Your task to perform on an android device: turn off picture-in-picture Image 0: 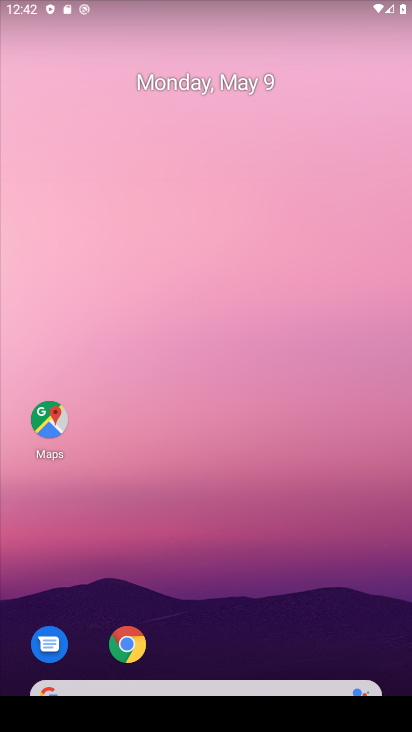
Step 0: drag from (216, 638) to (137, 156)
Your task to perform on an android device: turn off picture-in-picture Image 1: 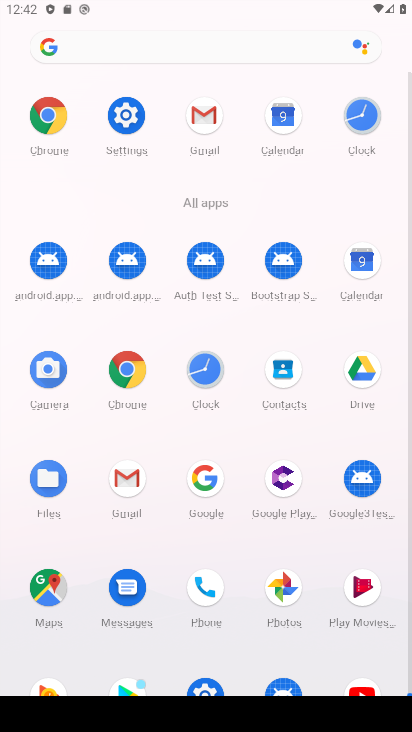
Step 1: click (131, 139)
Your task to perform on an android device: turn off picture-in-picture Image 2: 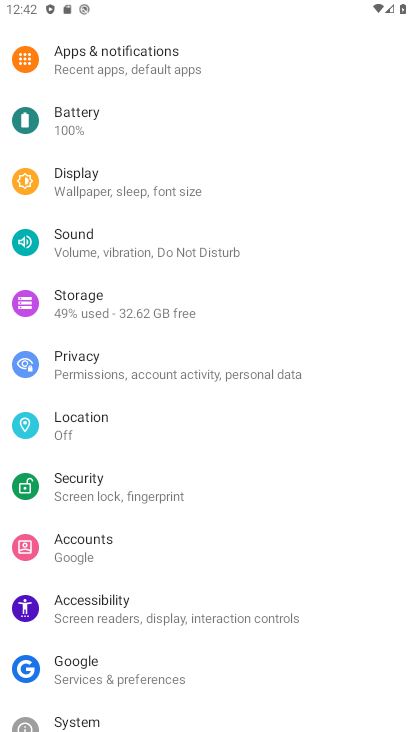
Step 2: drag from (131, 145) to (76, 725)
Your task to perform on an android device: turn off picture-in-picture Image 3: 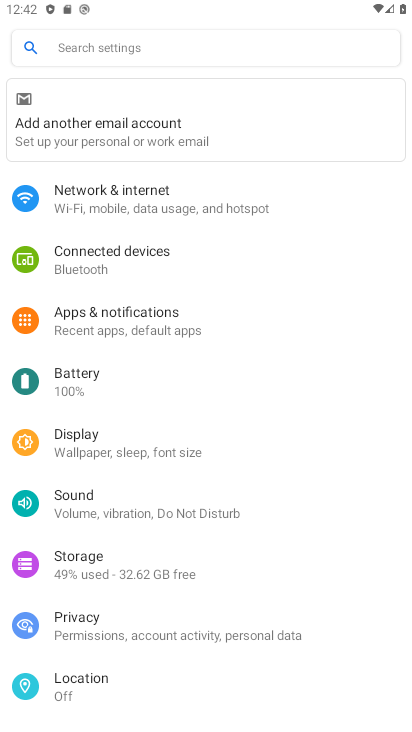
Step 3: click (125, 334)
Your task to perform on an android device: turn off picture-in-picture Image 4: 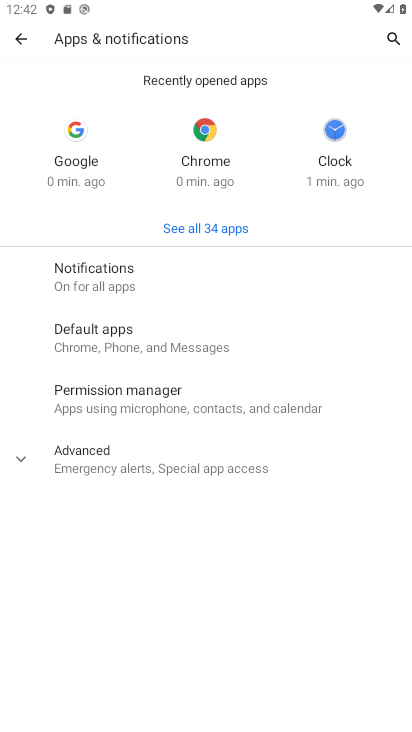
Step 4: click (65, 456)
Your task to perform on an android device: turn off picture-in-picture Image 5: 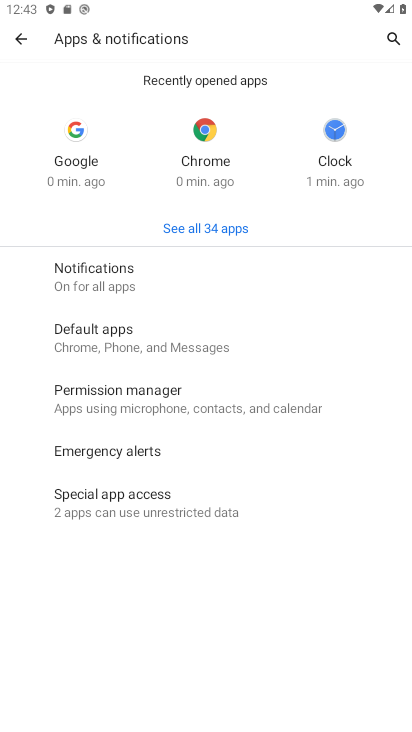
Step 5: click (99, 517)
Your task to perform on an android device: turn off picture-in-picture Image 6: 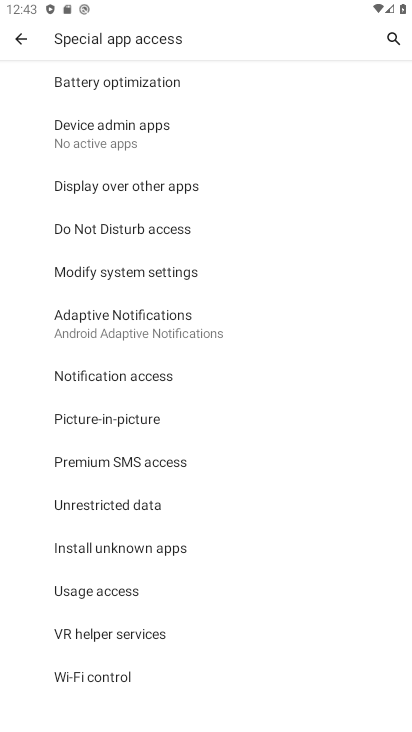
Step 6: click (118, 407)
Your task to perform on an android device: turn off picture-in-picture Image 7: 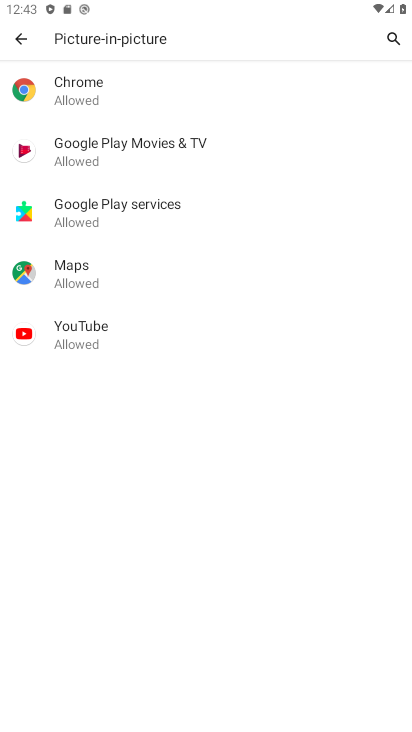
Step 7: click (53, 84)
Your task to perform on an android device: turn off picture-in-picture Image 8: 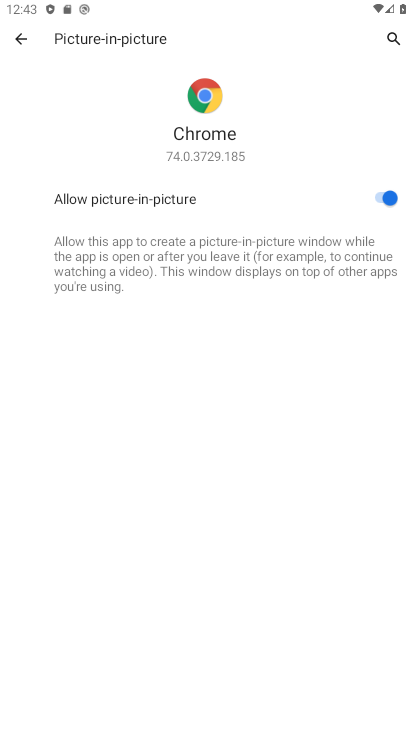
Step 8: click (391, 198)
Your task to perform on an android device: turn off picture-in-picture Image 9: 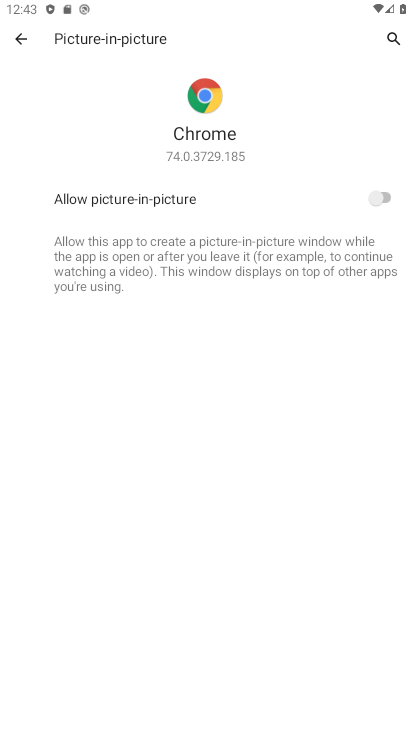
Step 9: task complete